Your task to perform on an android device: Add "usb-c to usb-a" to the cart on costco.com Image 0: 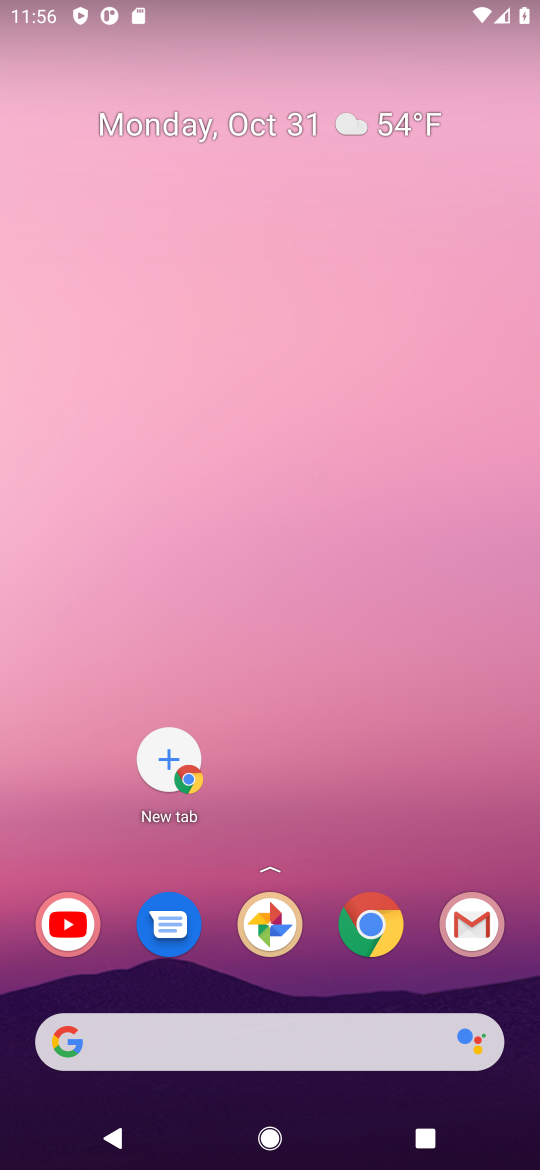
Step 0: click (369, 924)
Your task to perform on an android device: Add "usb-c to usb-a" to the cart on costco.com Image 1: 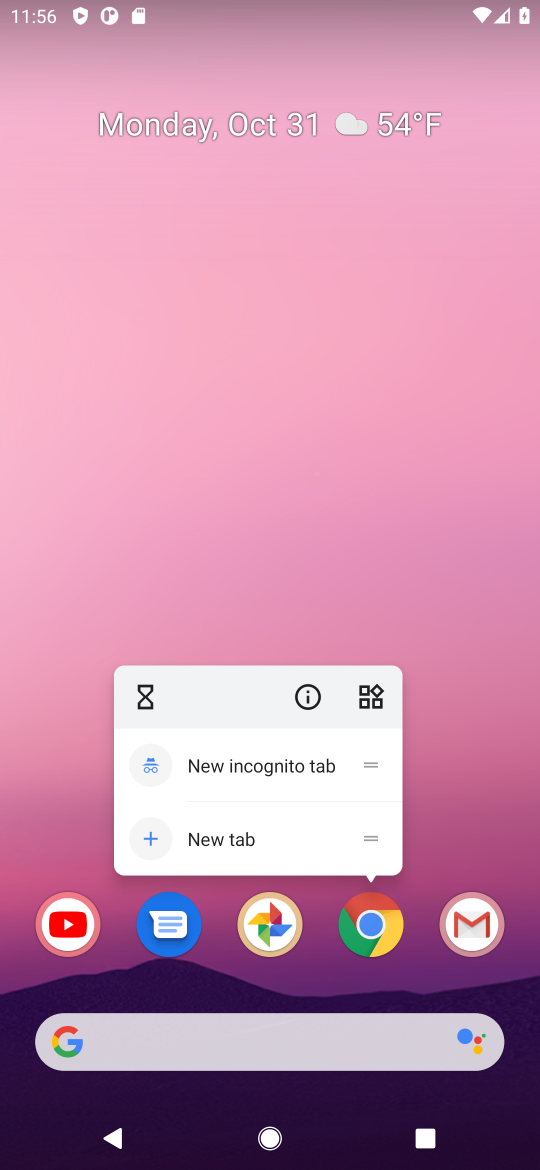
Step 1: click (370, 926)
Your task to perform on an android device: Add "usb-c to usb-a" to the cart on costco.com Image 2: 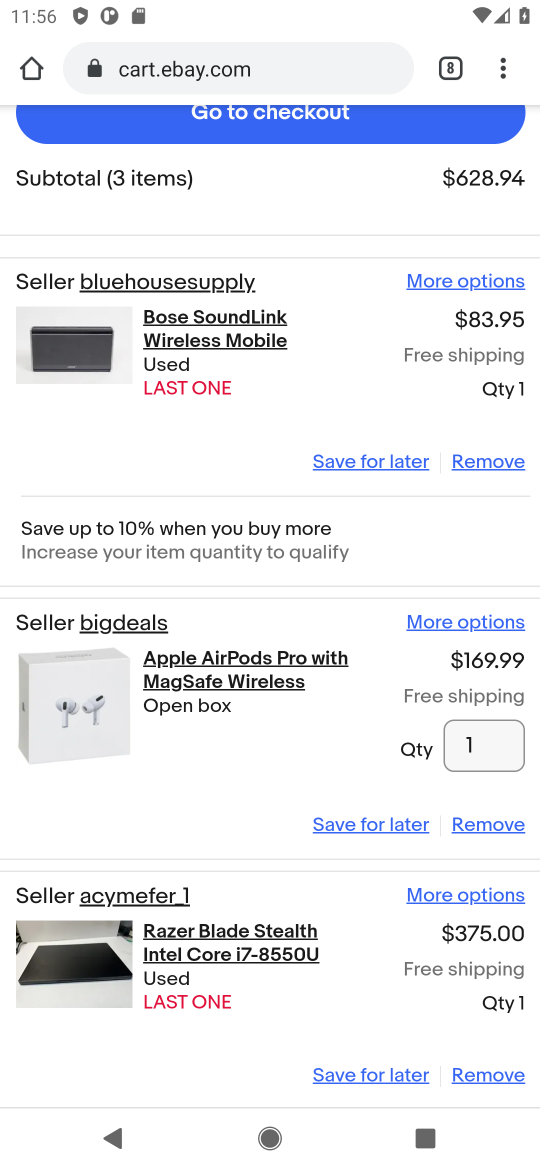
Step 2: click (196, 69)
Your task to perform on an android device: Add "usb-c to usb-a" to the cart on costco.com Image 3: 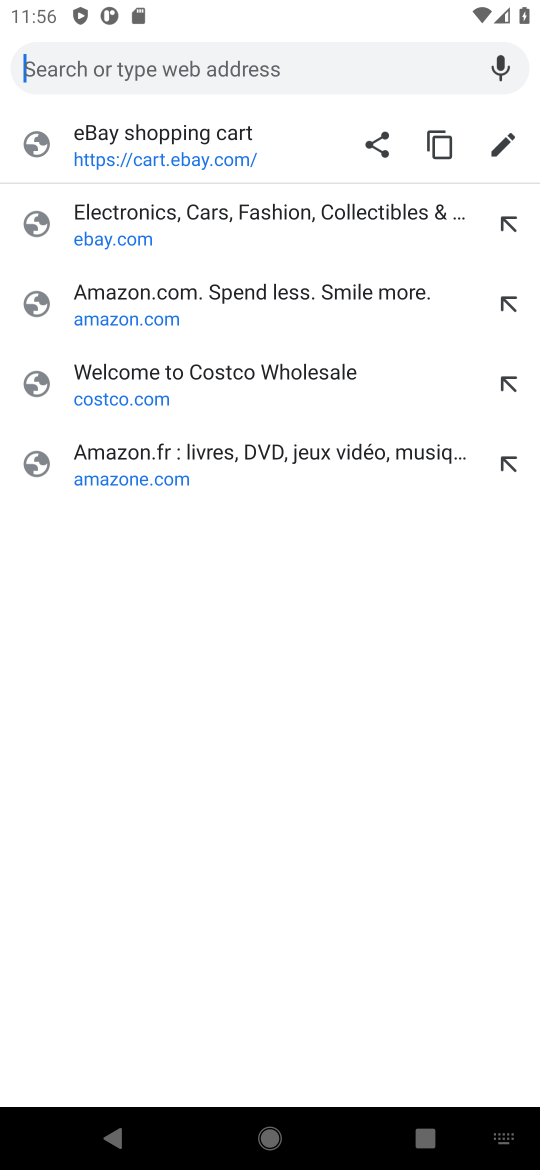
Step 3: type ""
Your task to perform on an android device: Add "usb-c to usb-a" to the cart on costco.com Image 4: 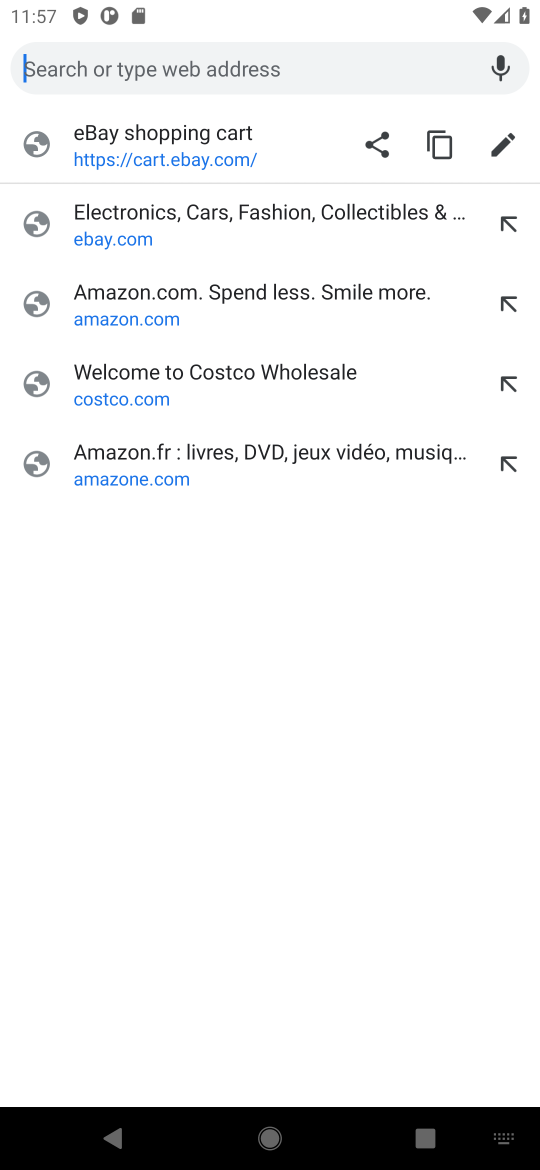
Step 4: type "costco.com"
Your task to perform on an android device: Add "usb-c to usb-a" to the cart on costco.com Image 5: 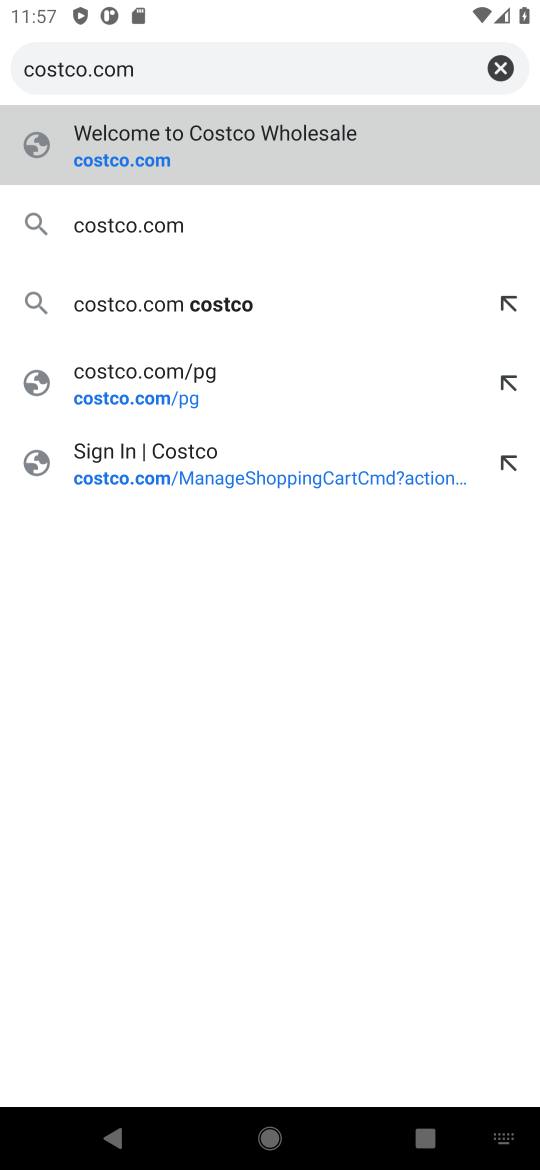
Step 5: type ""
Your task to perform on an android device: Add "usb-c to usb-a" to the cart on costco.com Image 6: 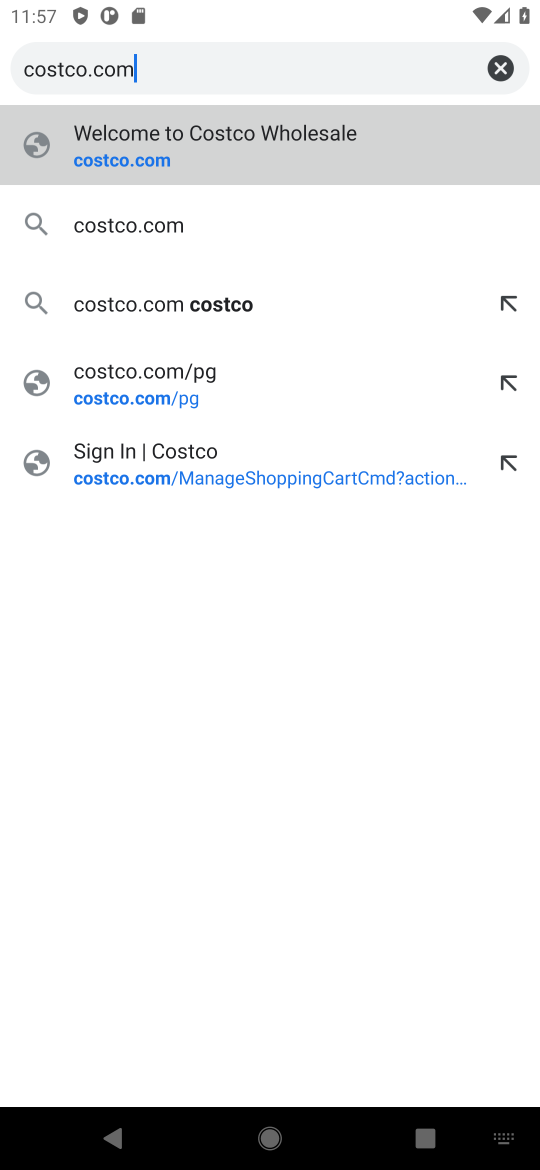
Step 6: click (109, 146)
Your task to perform on an android device: Add "usb-c to usb-a" to the cart on costco.com Image 7: 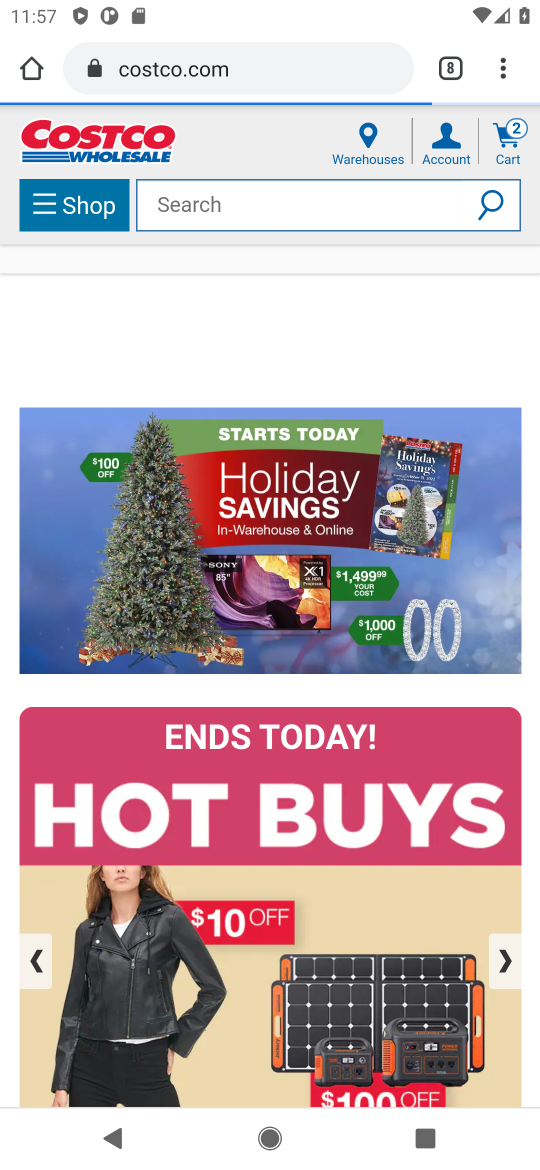
Step 7: click (302, 210)
Your task to perform on an android device: Add "usb-c to usb-a" to the cart on costco.com Image 8: 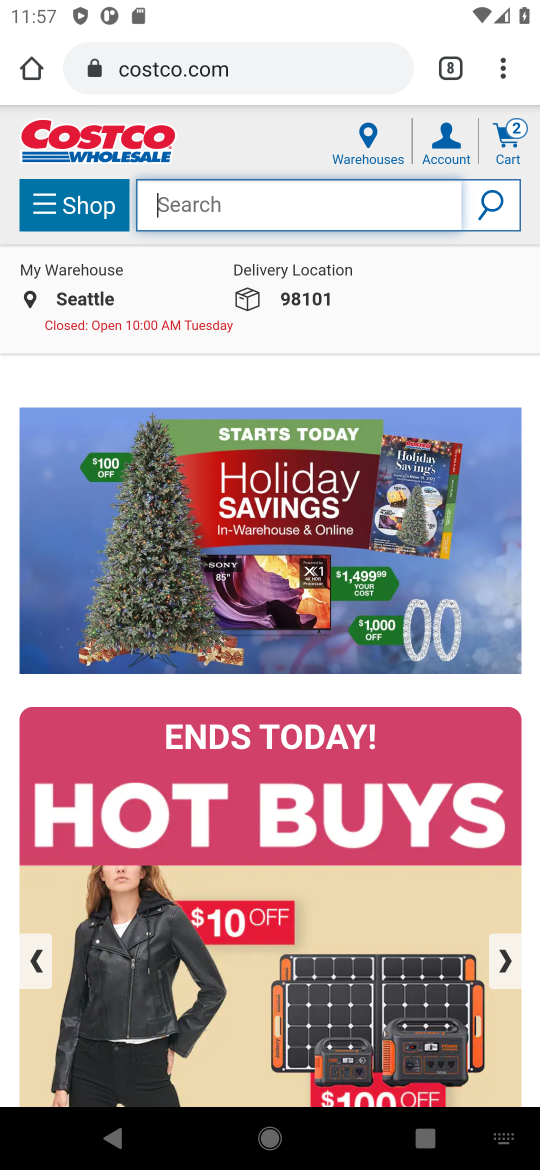
Step 8: type "usb-c to usb-a"
Your task to perform on an android device: Add "usb-c to usb-a" to the cart on costco.com Image 9: 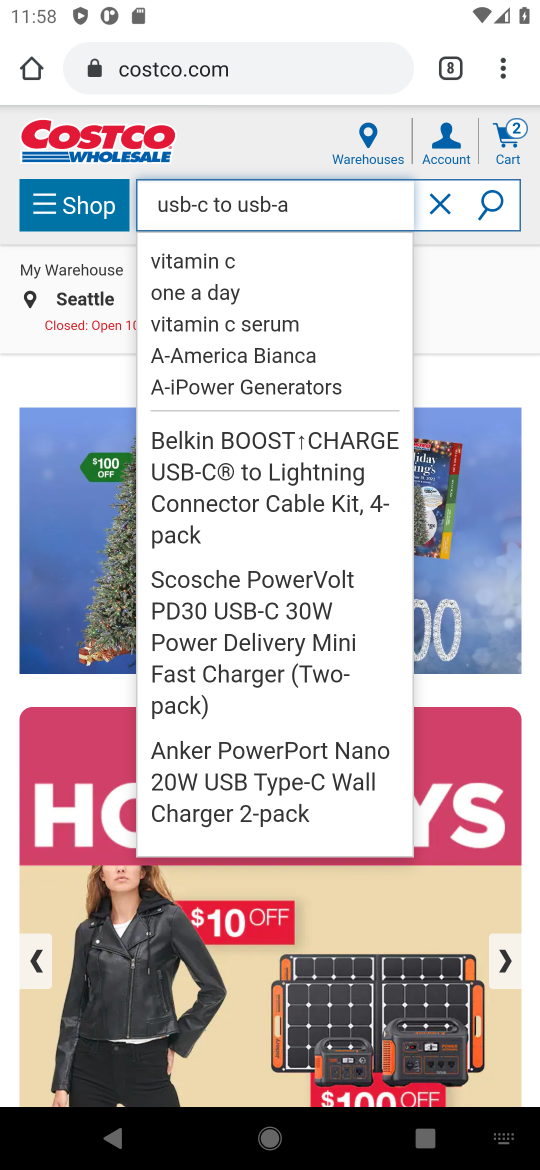
Step 9: click (164, 256)
Your task to perform on an android device: Add "usb-c to usb-a" to the cart on costco.com Image 10: 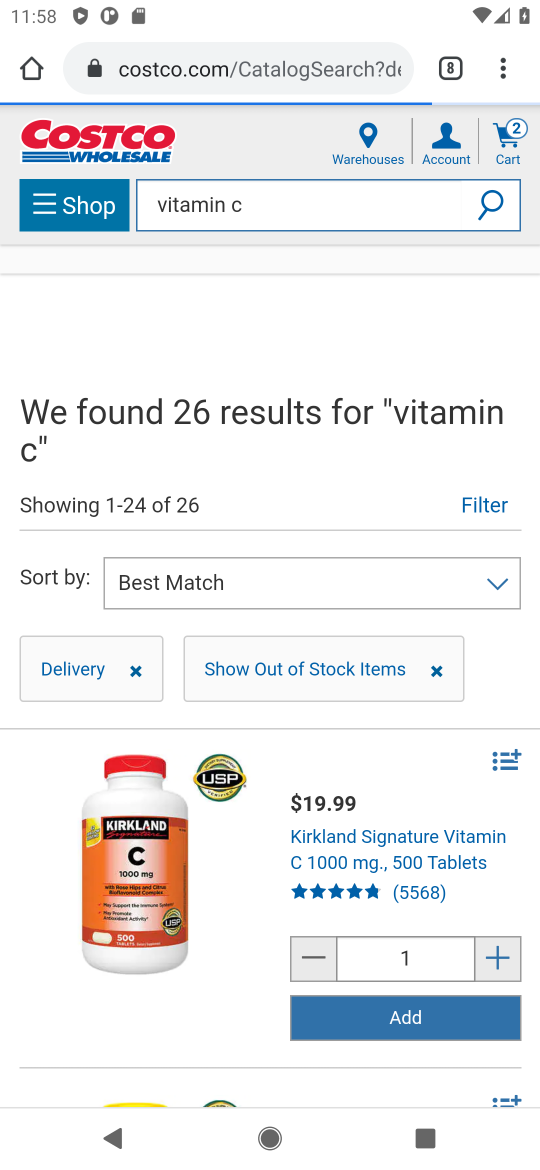
Step 10: click (493, 200)
Your task to perform on an android device: Add "usb-c to usb-a" to the cart on costco.com Image 11: 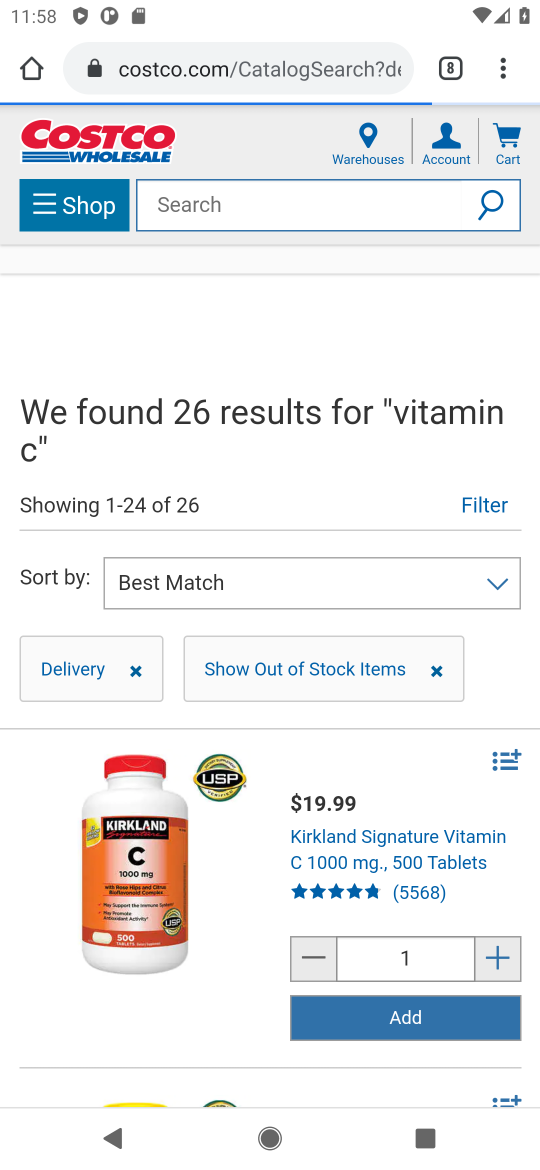
Step 11: click (327, 201)
Your task to perform on an android device: Add "usb-c to usb-a" to the cart on costco.com Image 12: 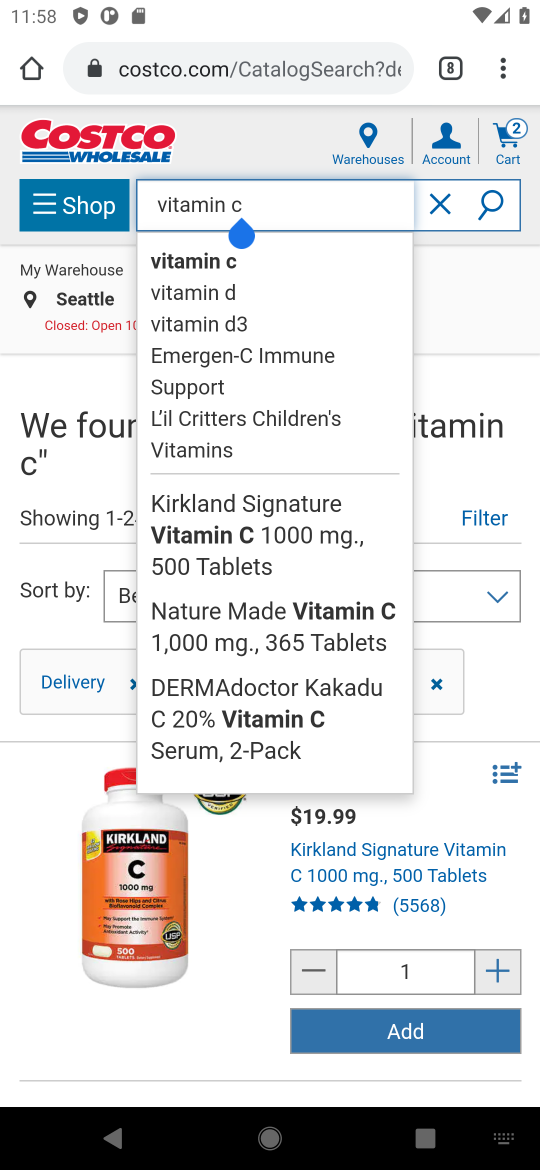
Step 12: click (270, 203)
Your task to perform on an android device: Add "usb-c to usb-a" to the cart on costco.com Image 13: 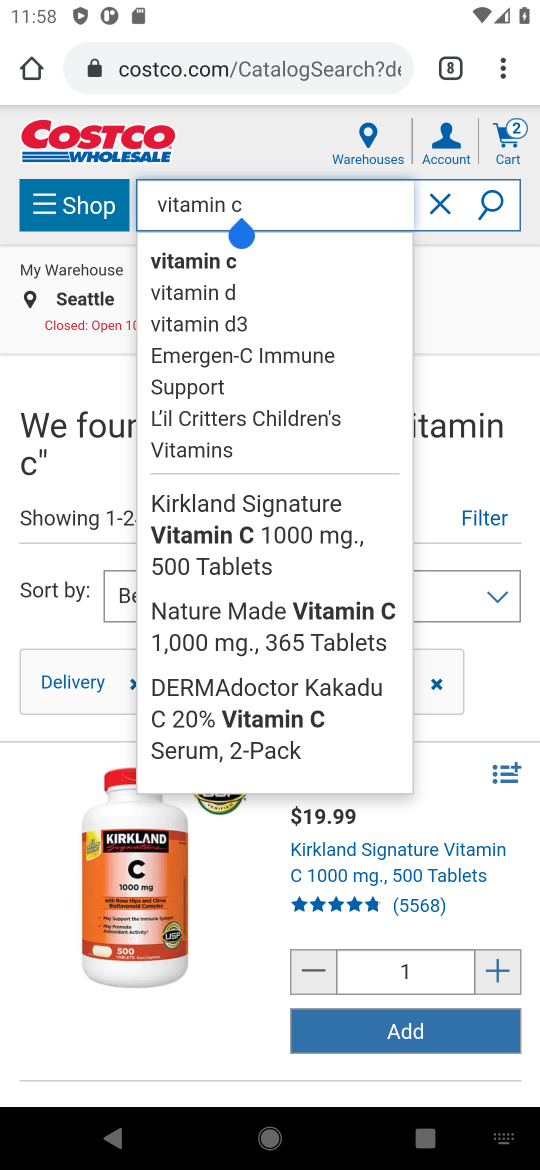
Step 13: click (433, 205)
Your task to perform on an android device: Add "usb-c to usb-a" to the cart on costco.com Image 14: 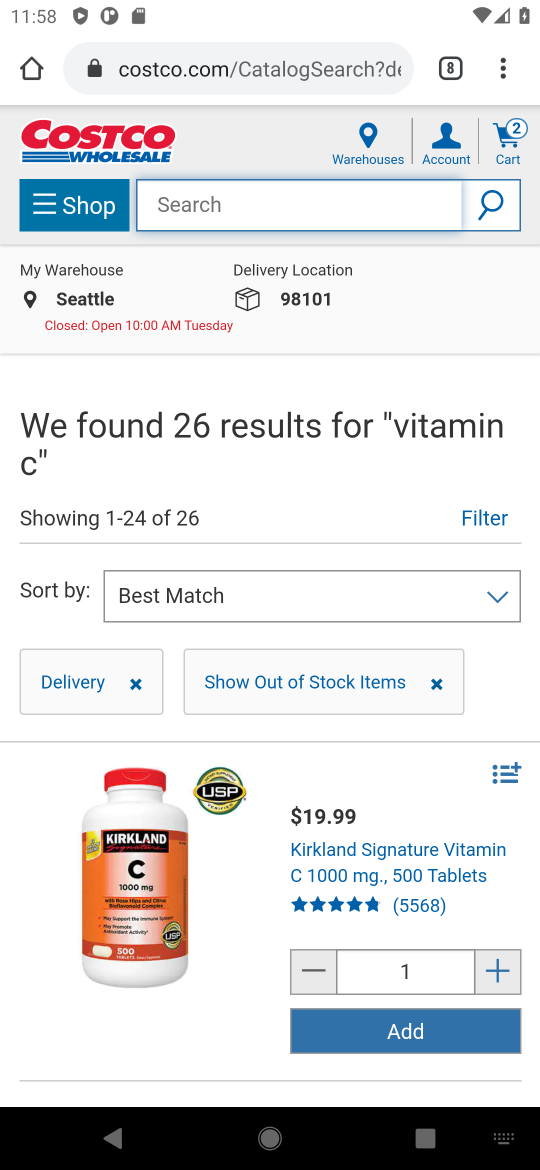
Step 14: type "usb c-usb-a"
Your task to perform on an android device: Add "usb-c to usb-a" to the cart on costco.com Image 15: 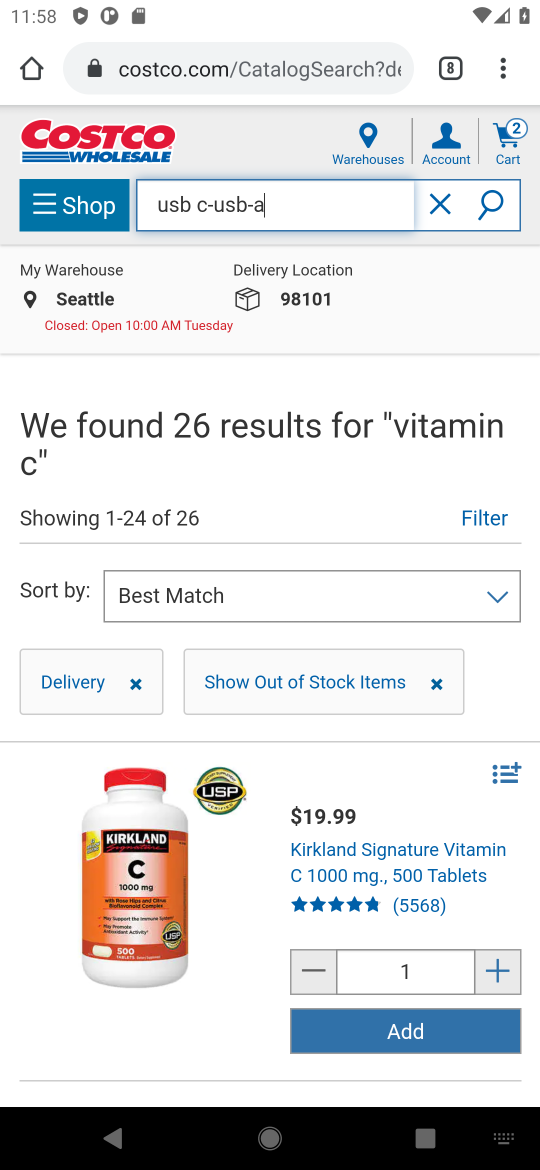
Step 15: type ""
Your task to perform on an android device: Add "usb-c to usb-a" to the cart on costco.com Image 16: 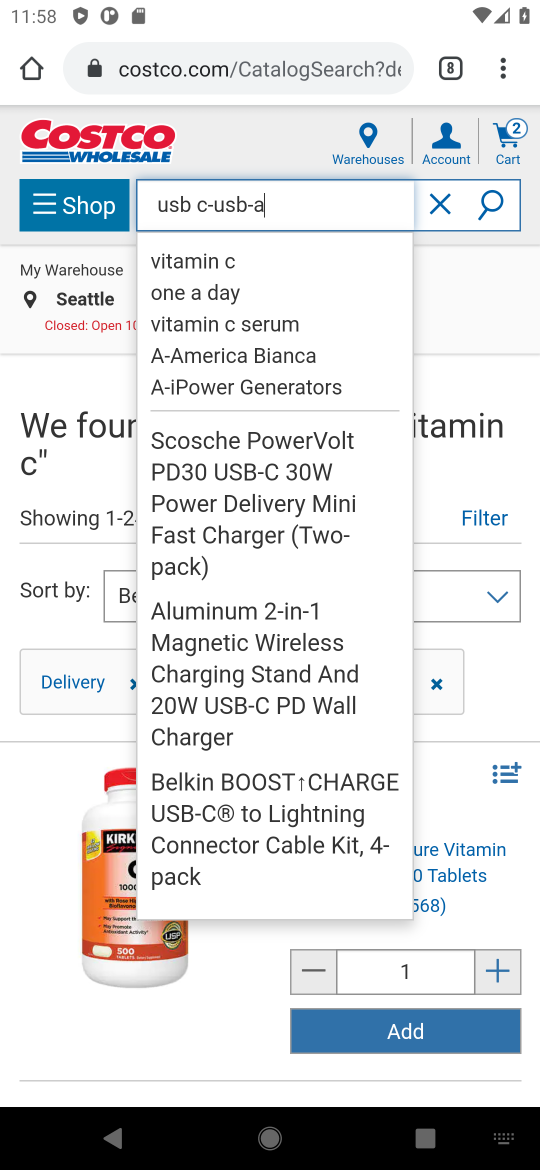
Step 16: click (225, 492)
Your task to perform on an android device: Add "usb-c to usb-a" to the cart on costco.com Image 17: 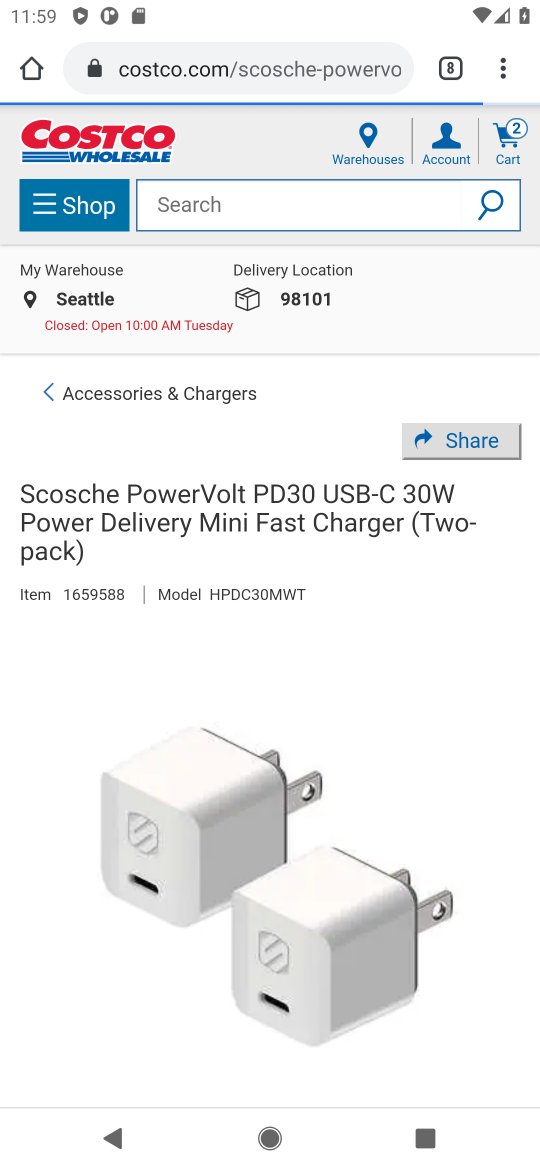
Step 17: drag from (174, 852) to (211, 238)
Your task to perform on an android device: Add "usb-c to usb-a" to the cart on costco.com Image 18: 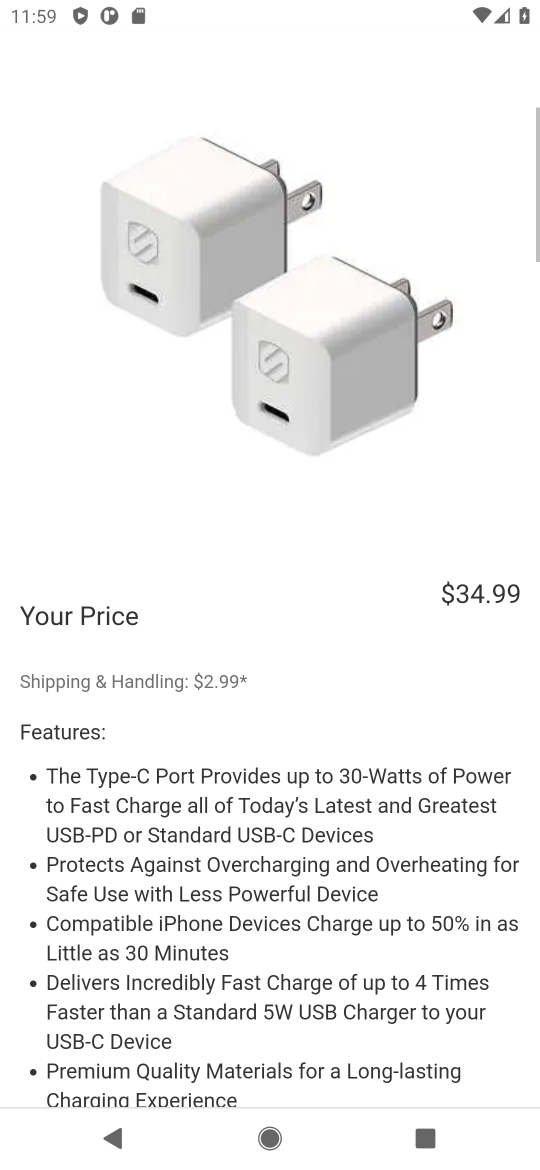
Step 18: drag from (176, 845) to (207, 382)
Your task to perform on an android device: Add "usb-c to usb-a" to the cart on costco.com Image 19: 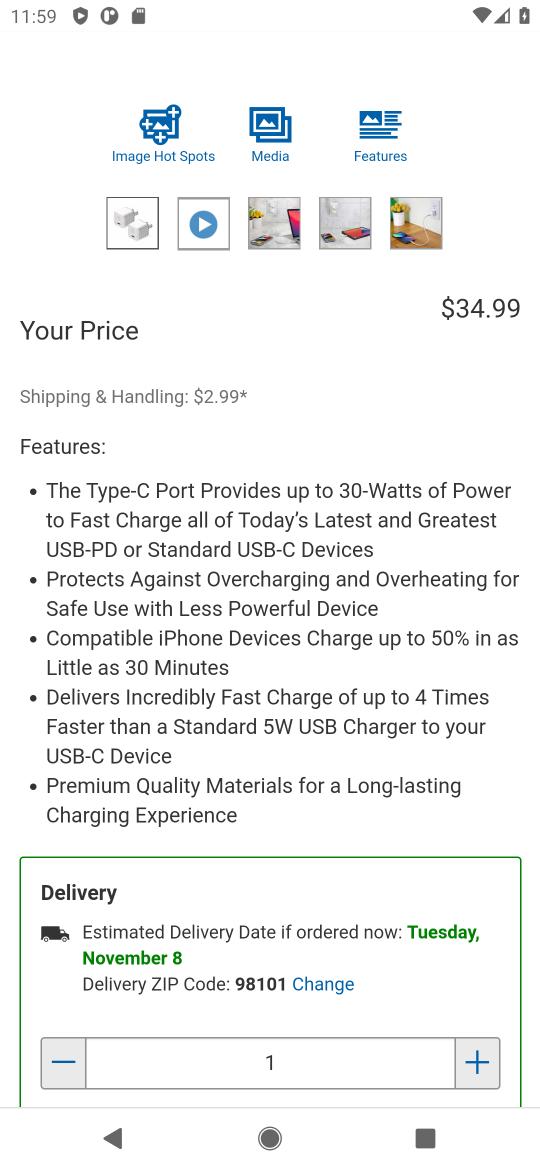
Step 19: drag from (303, 765) to (305, 237)
Your task to perform on an android device: Add "usb-c to usb-a" to the cart on costco.com Image 20: 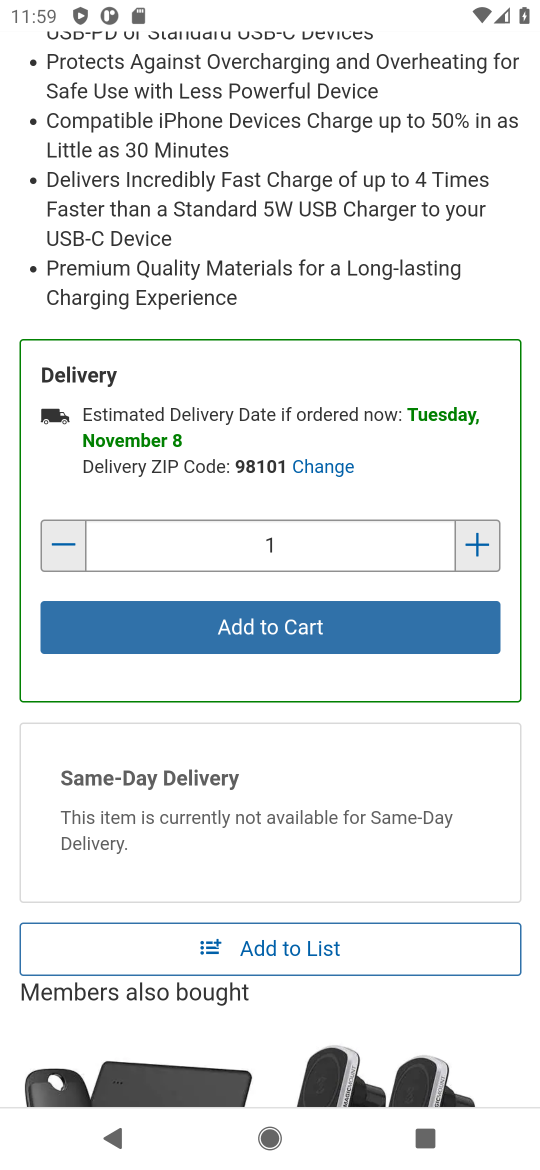
Step 20: click (268, 636)
Your task to perform on an android device: Add "usb-c to usb-a" to the cart on costco.com Image 21: 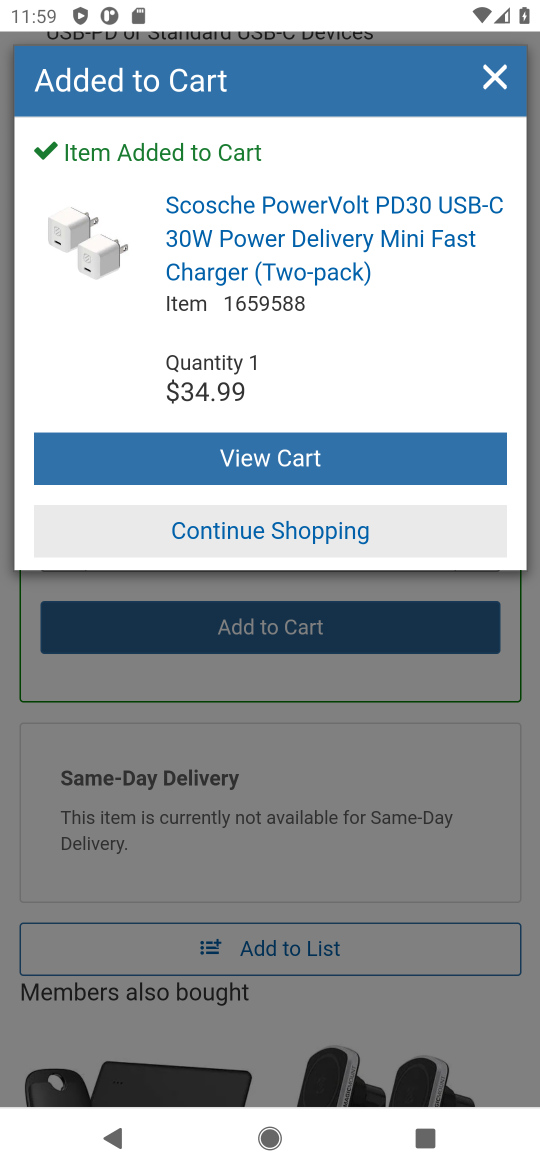
Step 21: click (278, 456)
Your task to perform on an android device: Add "usb-c to usb-a" to the cart on costco.com Image 22: 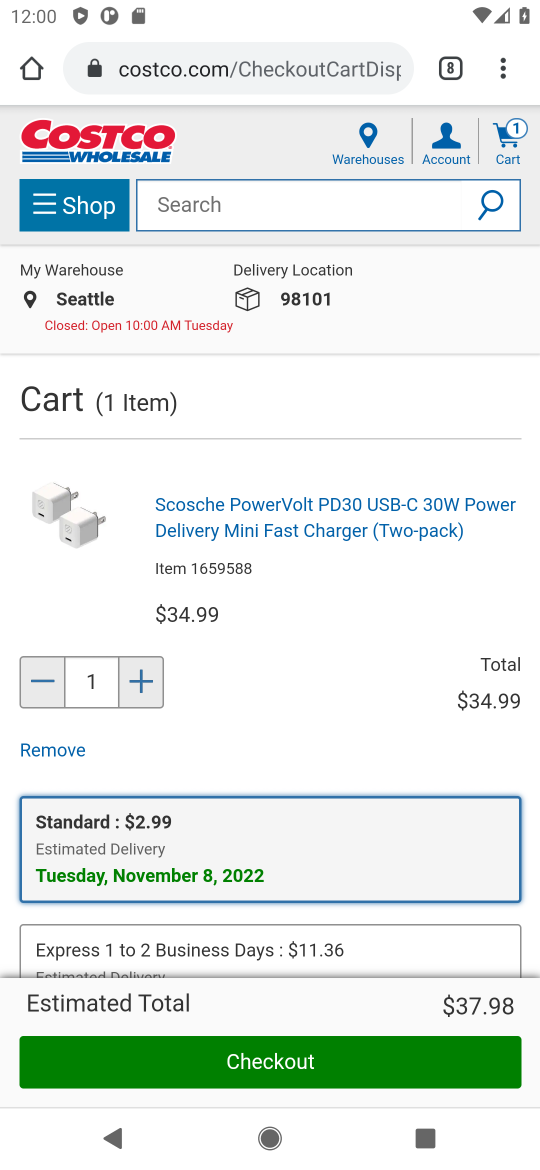
Step 22: task complete